Your task to perform on an android device: Open the web browser Image 0: 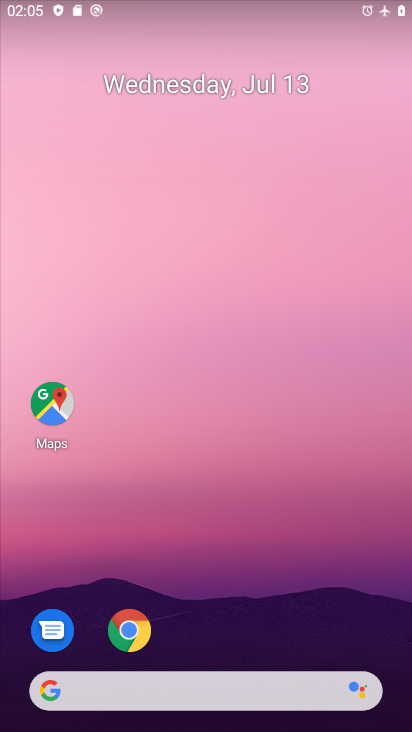
Step 0: click (140, 641)
Your task to perform on an android device: Open the web browser Image 1: 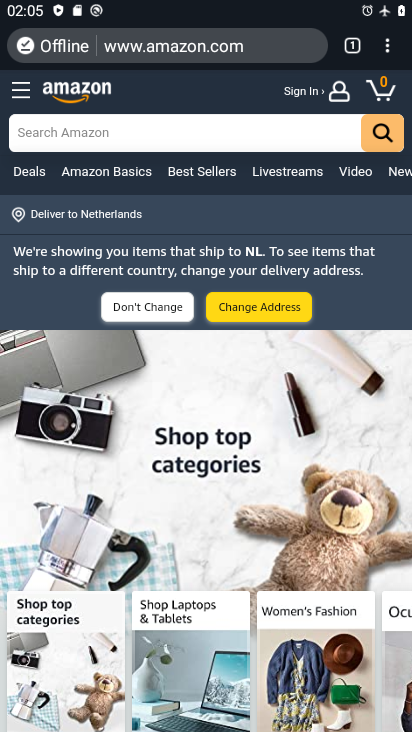
Step 1: task complete